Your task to perform on an android device: Show me recent news Image 0: 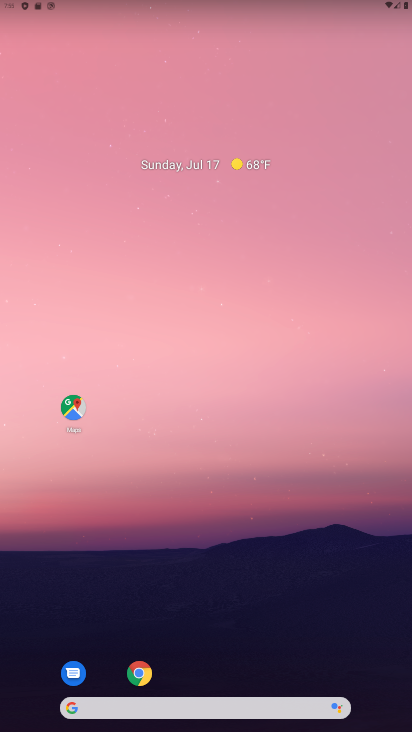
Step 0: drag from (269, 508) to (252, 10)
Your task to perform on an android device: Show me recent news Image 1: 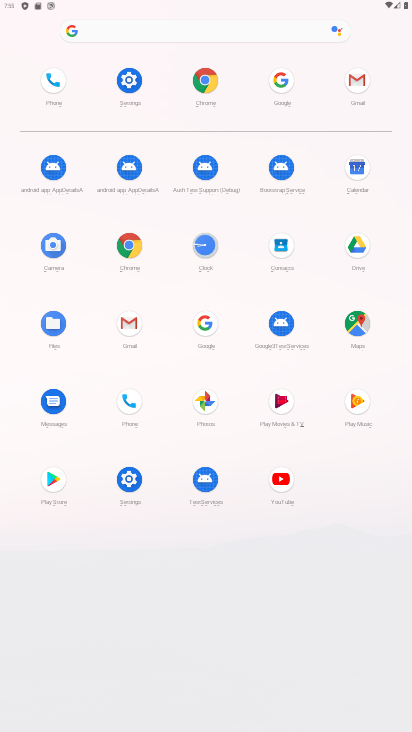
Step 1: click (211, 89)
Your task to perform on an android device: Show me recent news Image 2: 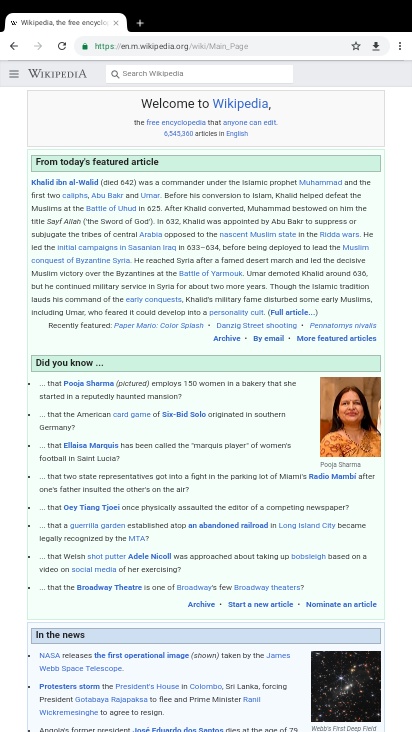
Step 2: drag from (161, 312) to (136, 656)
Your task to perform on an android device: Show me recent news Image 3: 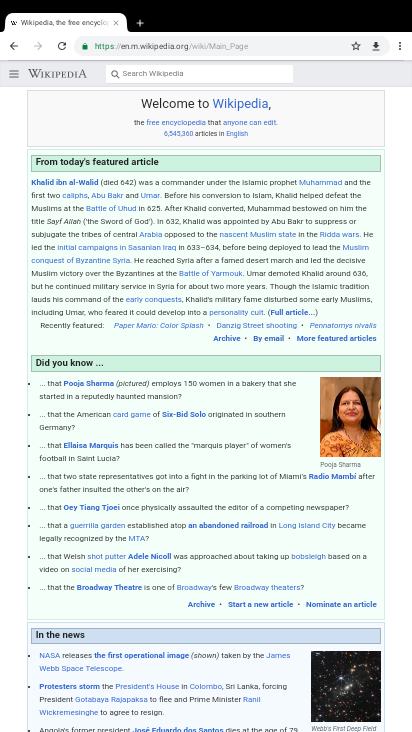
Step 3: click (9, 40)
Your task to perform on an android device: Show me recent news Image 4: 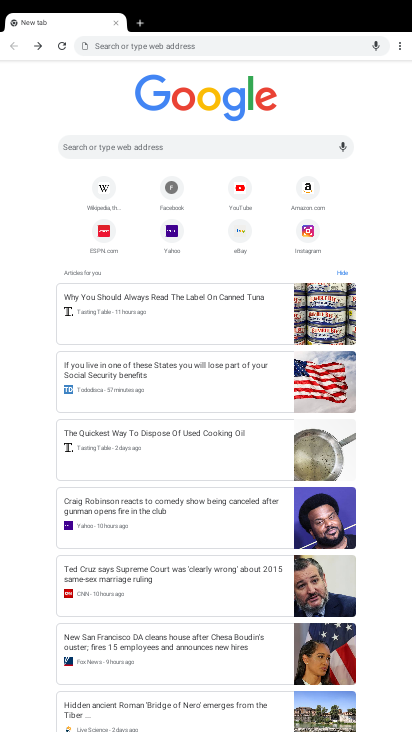
Step 4: task complete